Your task to perform on an android device: What's the price of the 2x4x8 boards at Home Depot? Image 0: 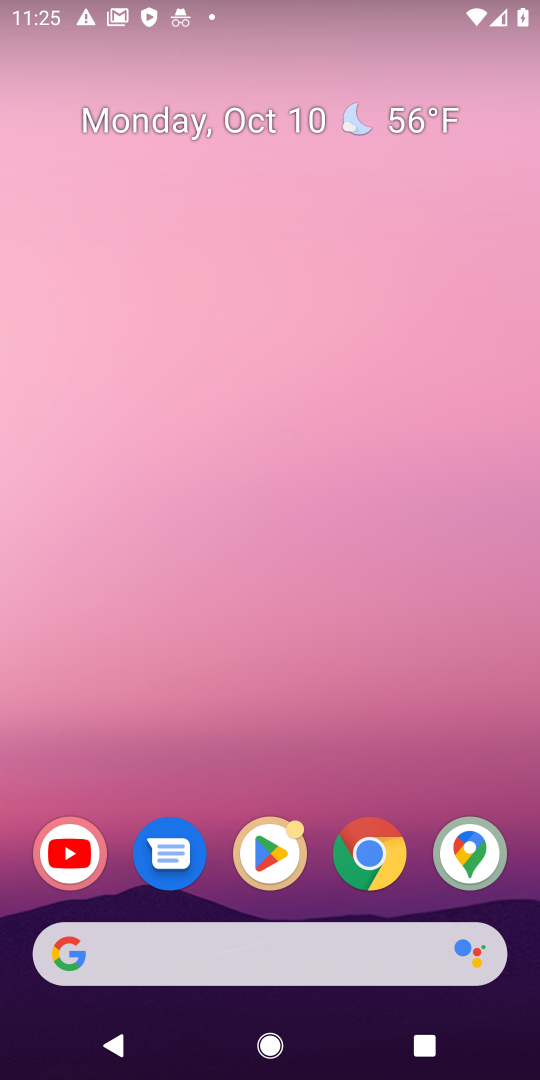
Step 0: press home button
Your task to perform on an android device: What's the price of the 2x4x8 boards at Home Depot? Image 1: 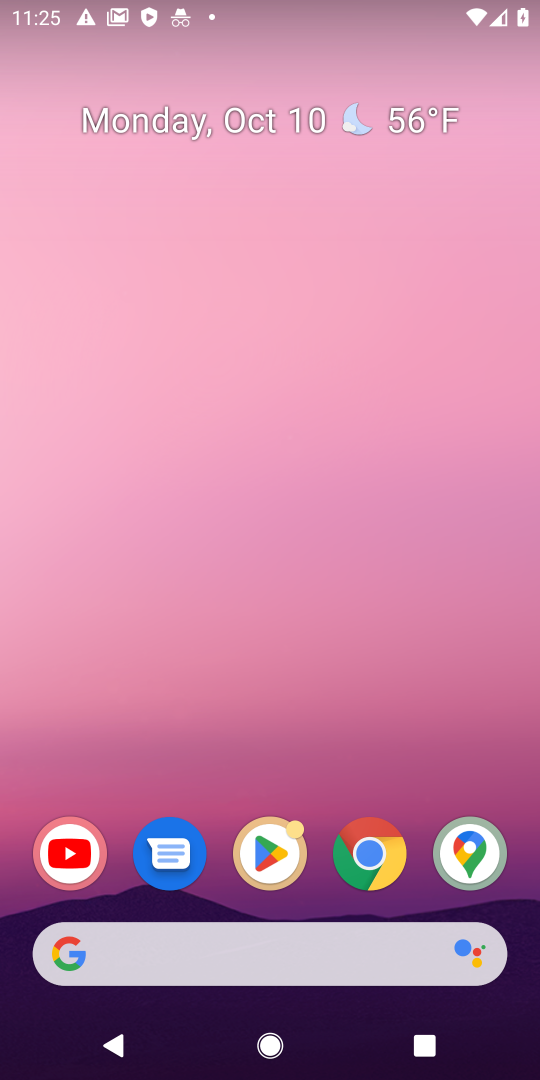
Step 1: click (249, 951)
Your task to perform on an android device: What's the price of the 2x4x8 boards at Home Depot? Image 2: 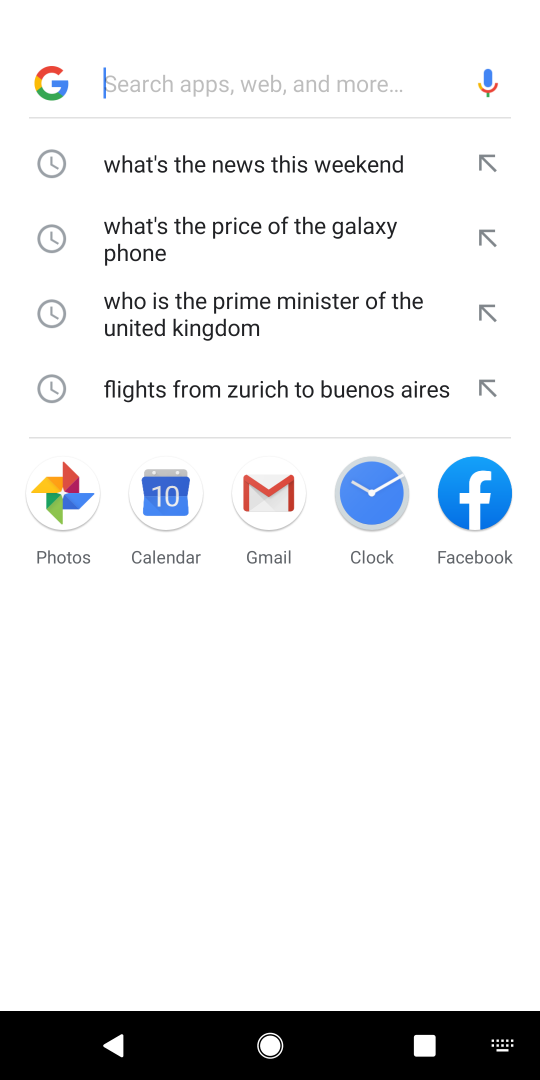
Step 2: type "What's the price of the 2x4x8 boards at Home Depot?"
Your task to perform on an android device: What's the price of the 2x4x8 boards at Home Depot? Image 3: 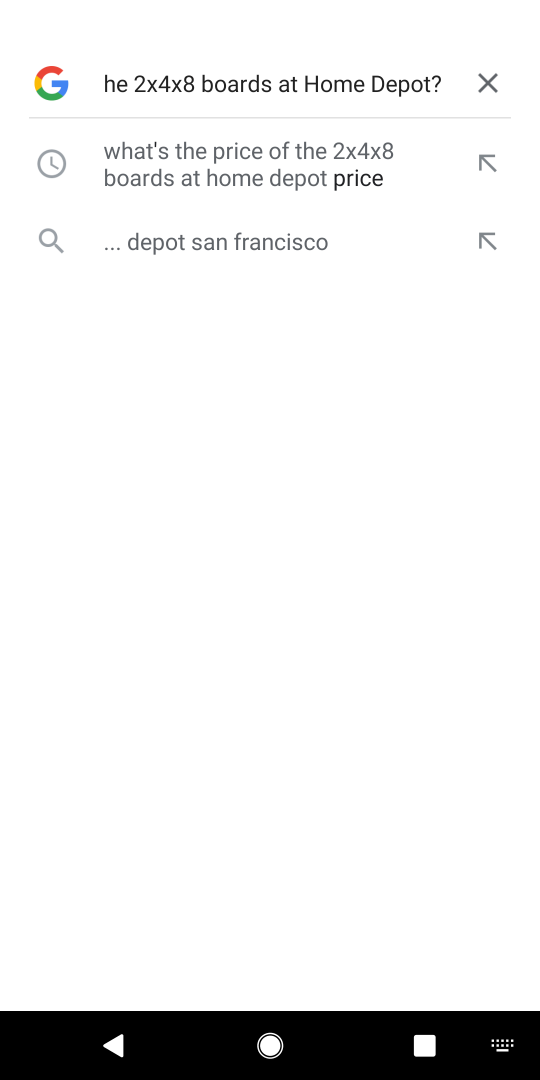
Step 3: press enter
Your task to perform on an android device: What's the price of the 2x4x8 boards at Home Depot? Image 4: 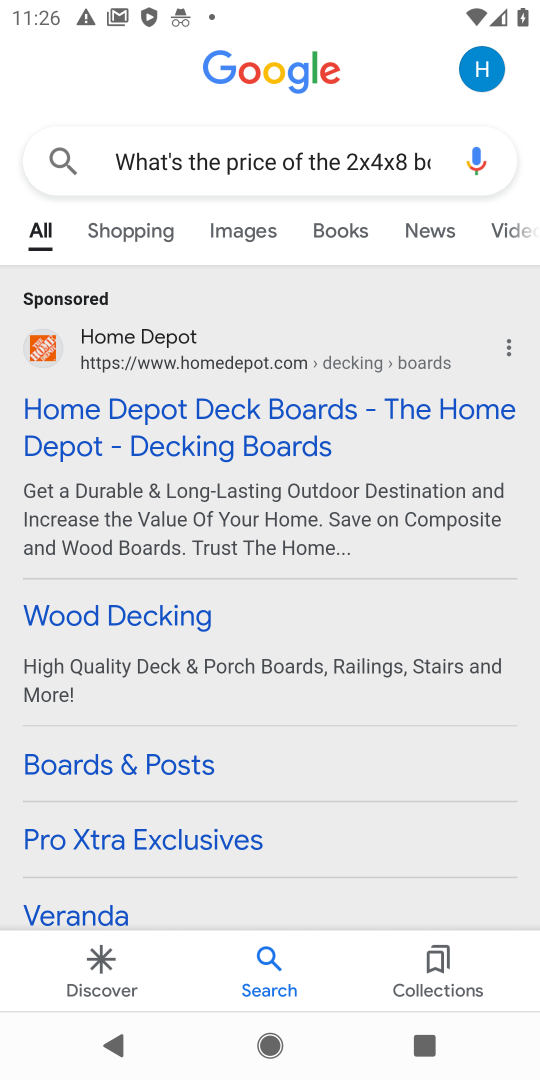
Step 4: drag from (350, 789) to (367, 454)
Your task to perform on an android device: What's the price of the 2x4x8 boards at Home Depot? Image 5: 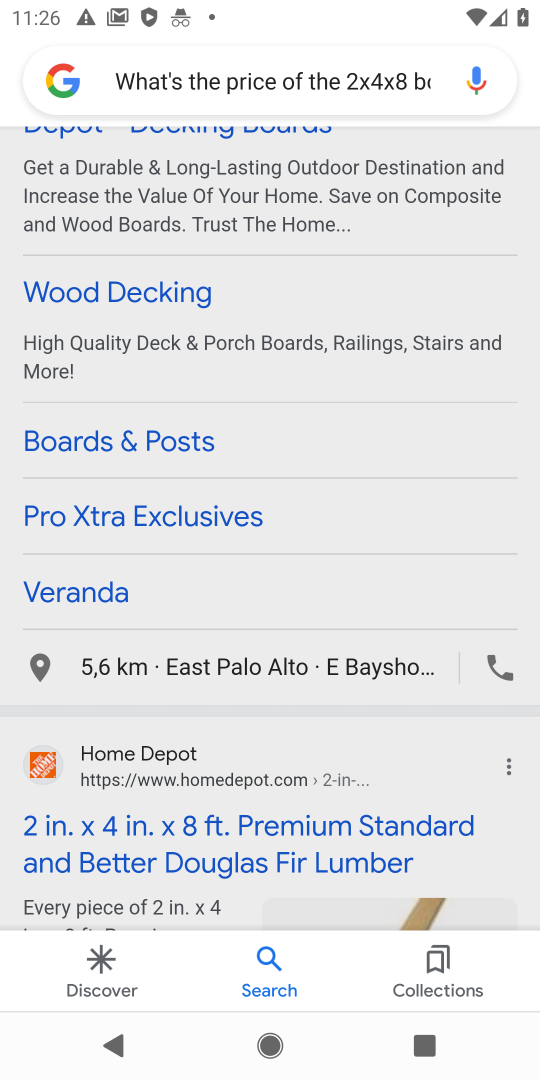
Step 5: drag from (333, 831) to (327, 468)
Your task to perform on an android device: What's the price of the 2x4x8 boards at Home Depot? Image 6: 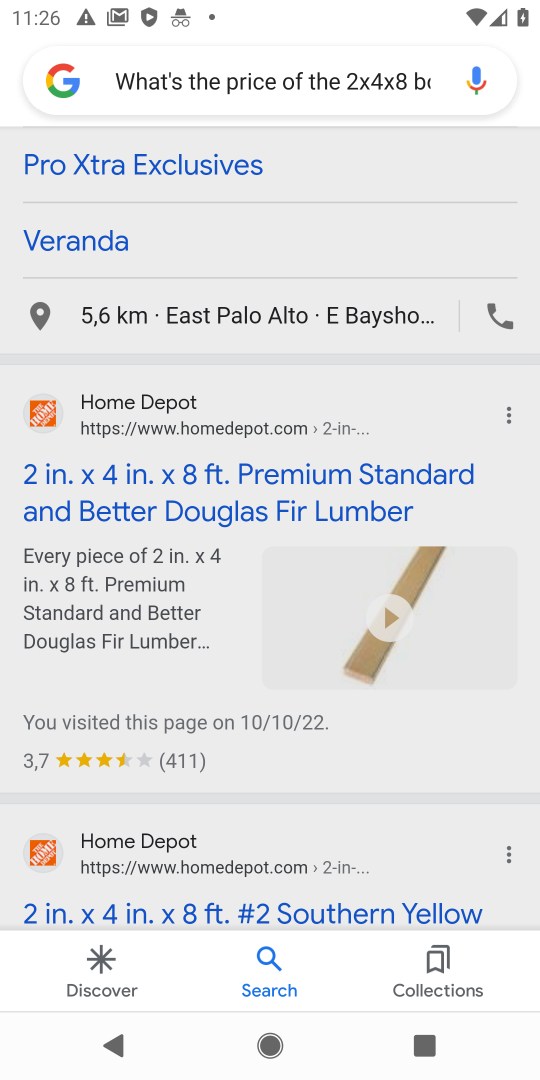
Step 6: click (288, 499)
Your task to perform on an android device: What's the price of the 2x4x8 boards at Home Depot? Image 7: 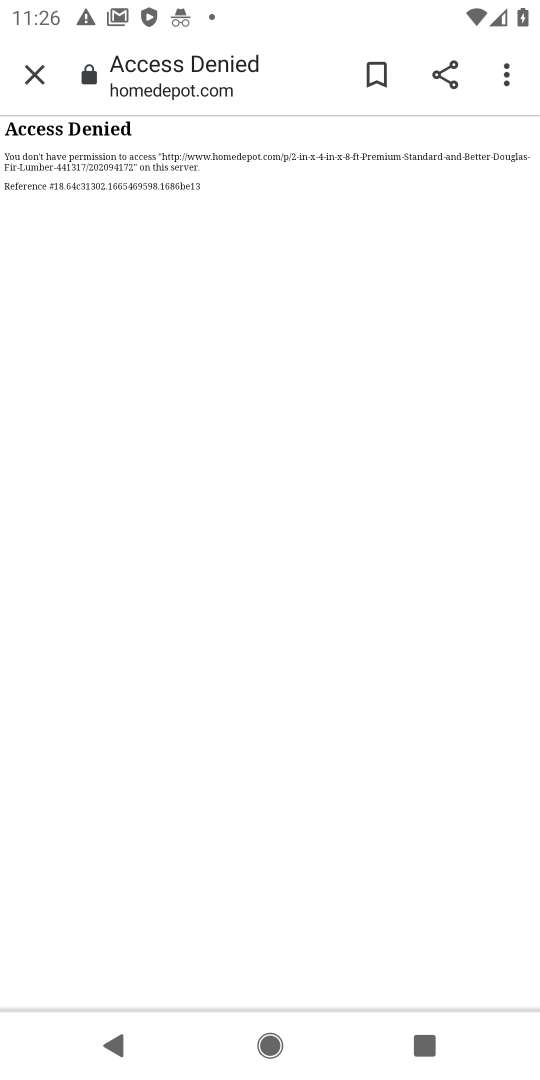
Step 7: press back button
Your task to perform on an android device: What's the price of the 2x4x8 boards at Home Depot? Image 8: 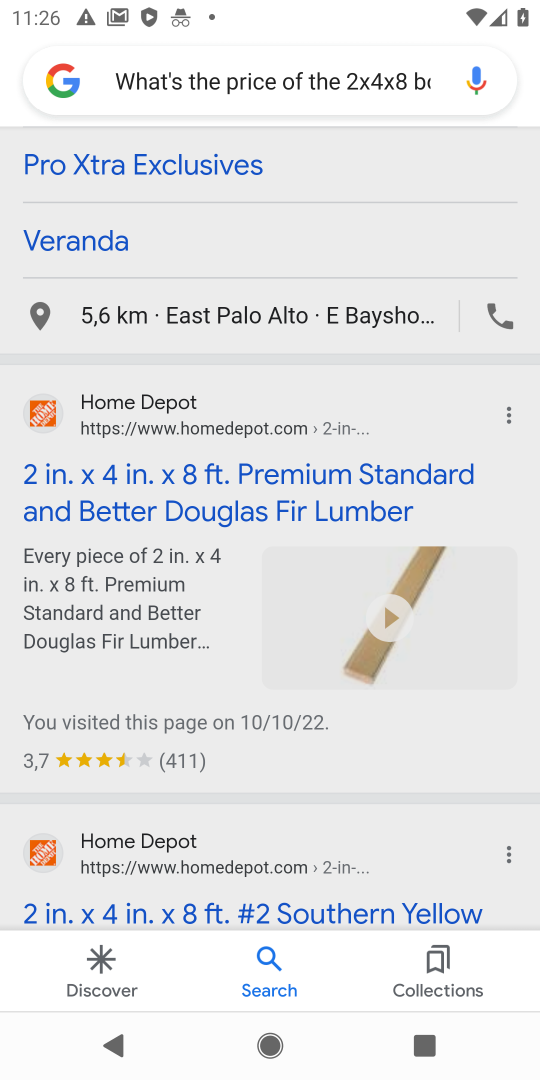
Step 8: drag from (327, 745) to (354, 470)
Your task to perform on an android device: What's the price of the 2x4x8 boards at Home Depot? Image 9: 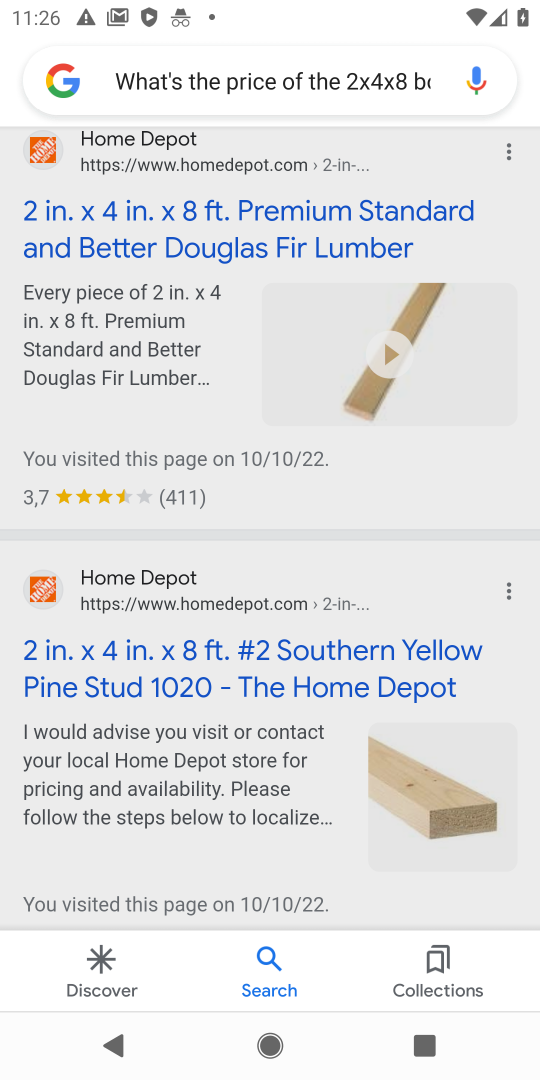
Step 9: click (272, 676)
Your task to perform on an android device: What's the price of the 2x4x8 boards at Home Depot? Image 10: 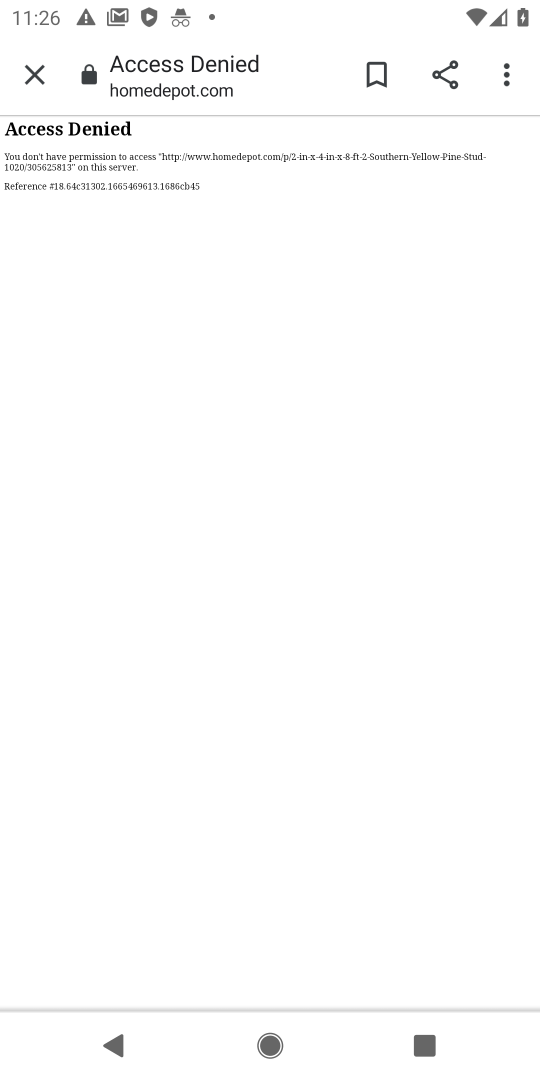
Step 10: task complete